Your task to perform on an android device: empty trash in the gmail app Image 0: 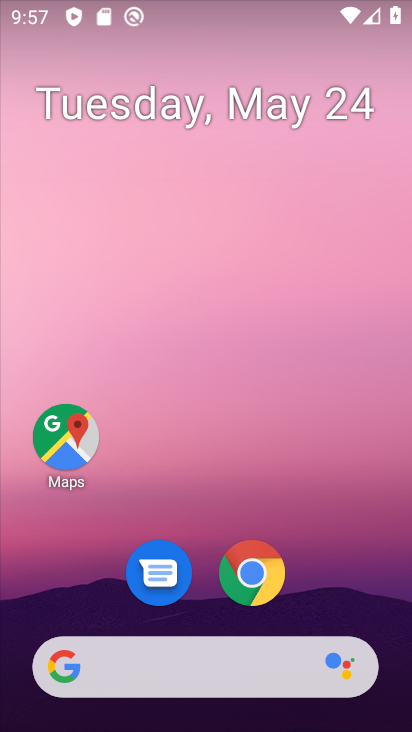
Step 0: drag from (335, 601) to (259, 205)
Your task to perform on an android device: empty trash in the gmail app Image 1: 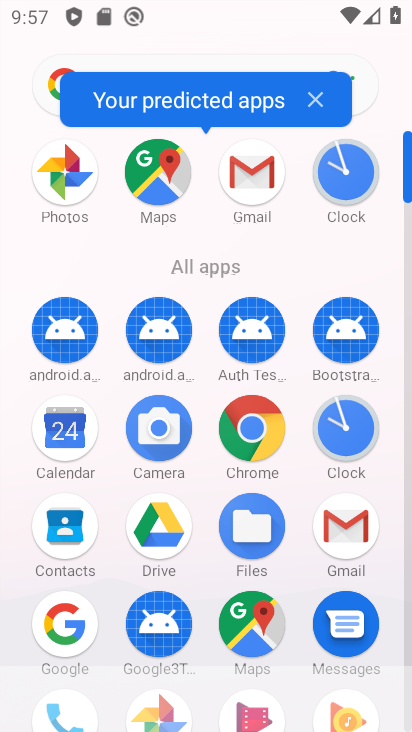
Step 1: click (251, 176)
Your task to perform on an android device: empty trash in the gmail app Image 2: 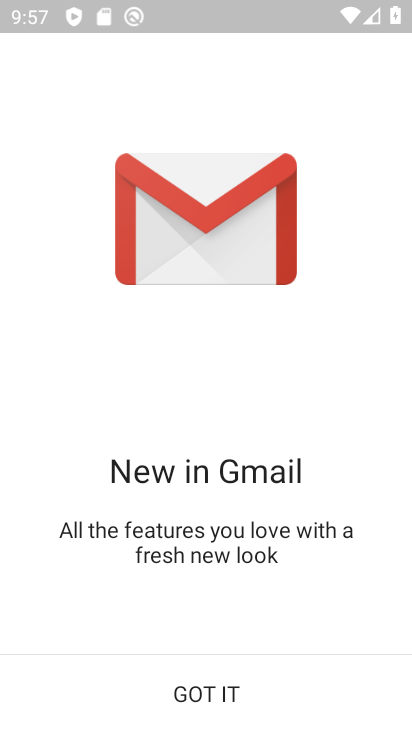
Step 2: click (197, 680)
Your task to perform on an android device: empty trash in the gmail app Image 3: 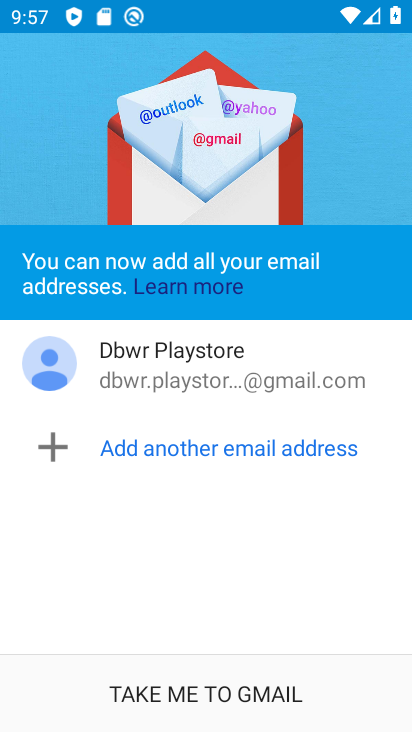
Step 3: click (196, 702)
Your task to perform on an android device: empty trash in the gmail app Image 4: 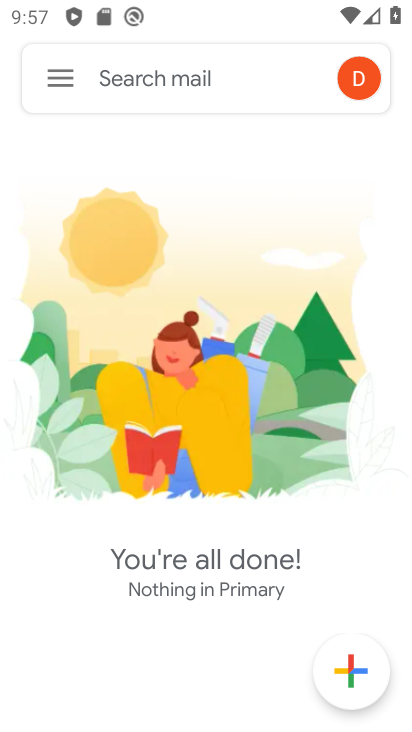
Step 4: click (65, 75)
Your task to perform on an android device: empty trash in the gmail app Image 5: 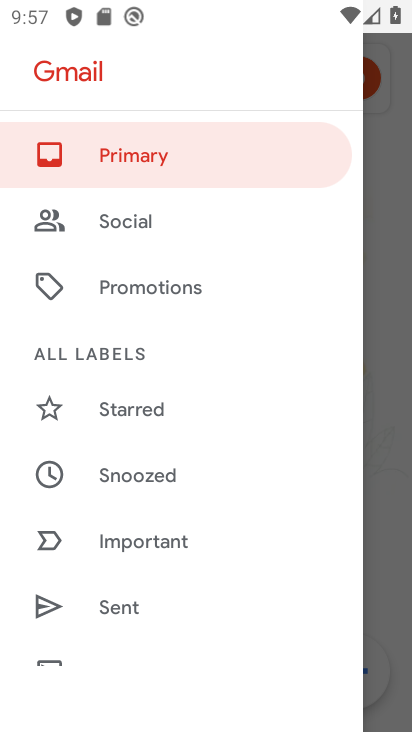
Step 5: drag from (189, 647) to (137, 188)
Your task to perform on an android device: empty trash in the gmail app Image 6: 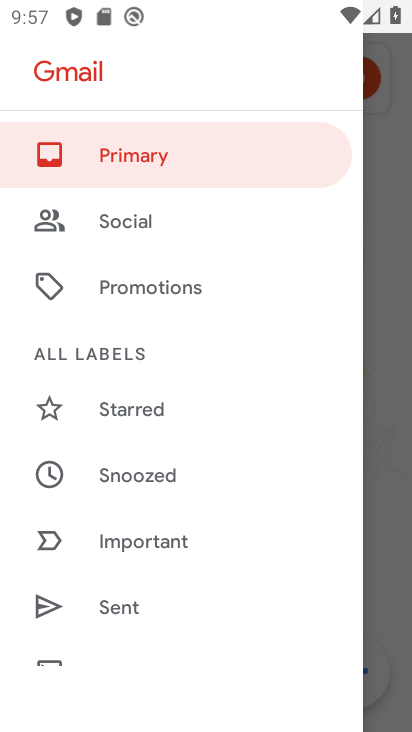
Step 6: drag from (111, 656) to (237, 96)
Your task to perform on an android device: empty trash in the gmail app Image 7: 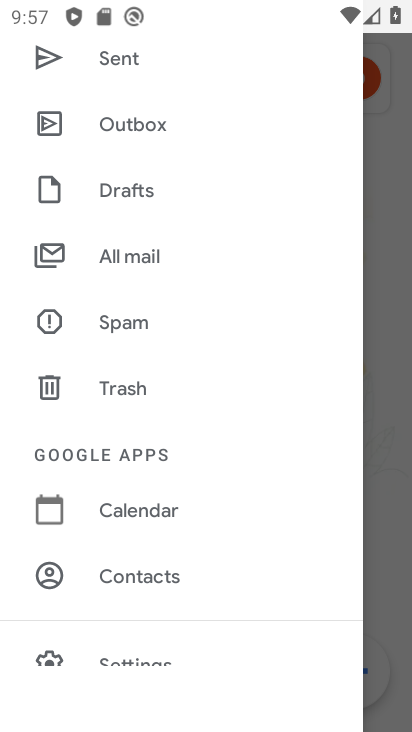
Step 7: click (143, 388)
Your task to perform on an android device: empty trash in the gmail app Image 8: 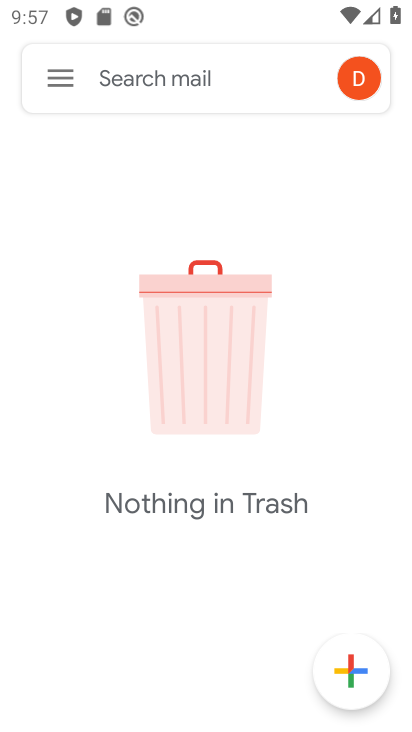
Step 8: task complete